Your task to perform on an android device: Go to Android settings Image 0: 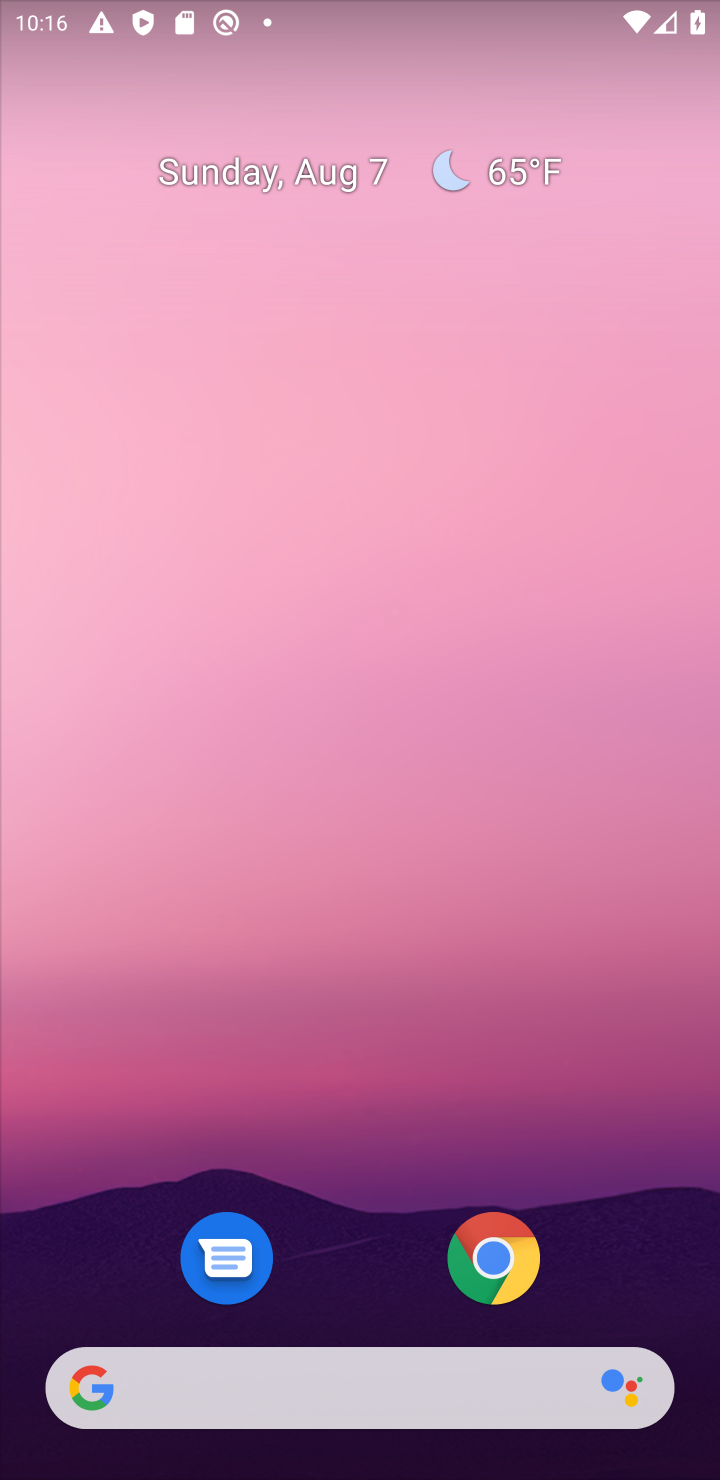
Step 0: press home button
Your task to perform on an android device: Go to Android settings Image 1: 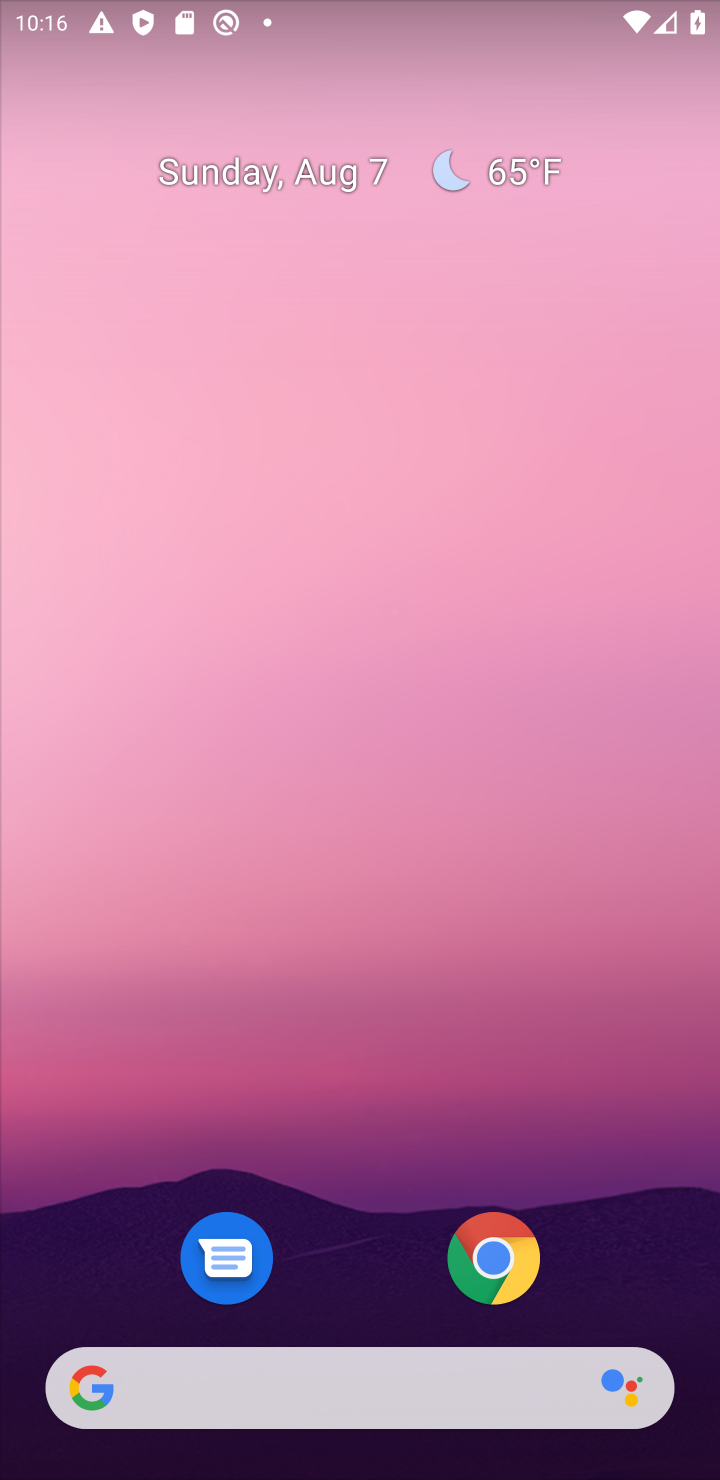
Step 1: drag from (362, 1301) to (244, 128)
Your task to perform on an android device: Go to Android settings Image 2: 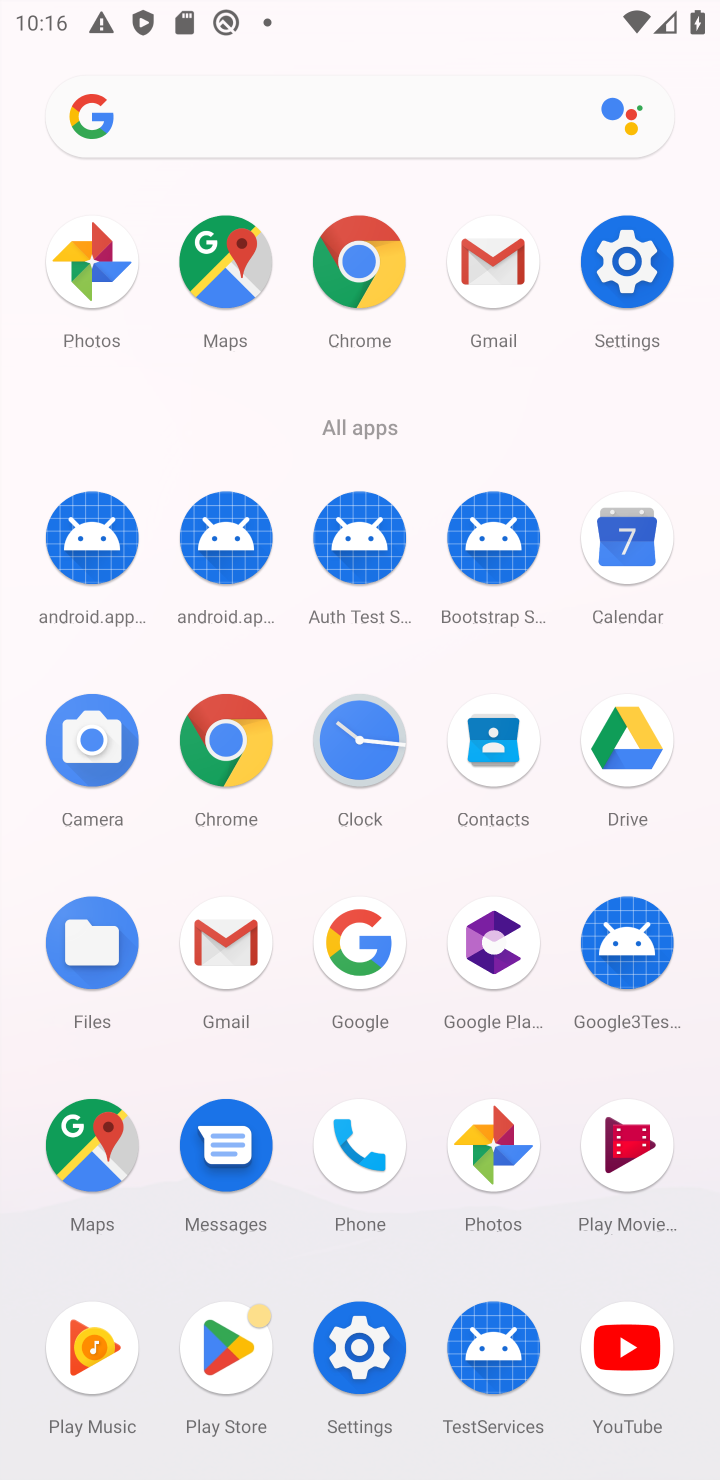
Step 2: click (309, 1353)
Your task to perform on an android device: Go to Android settings Image 3: 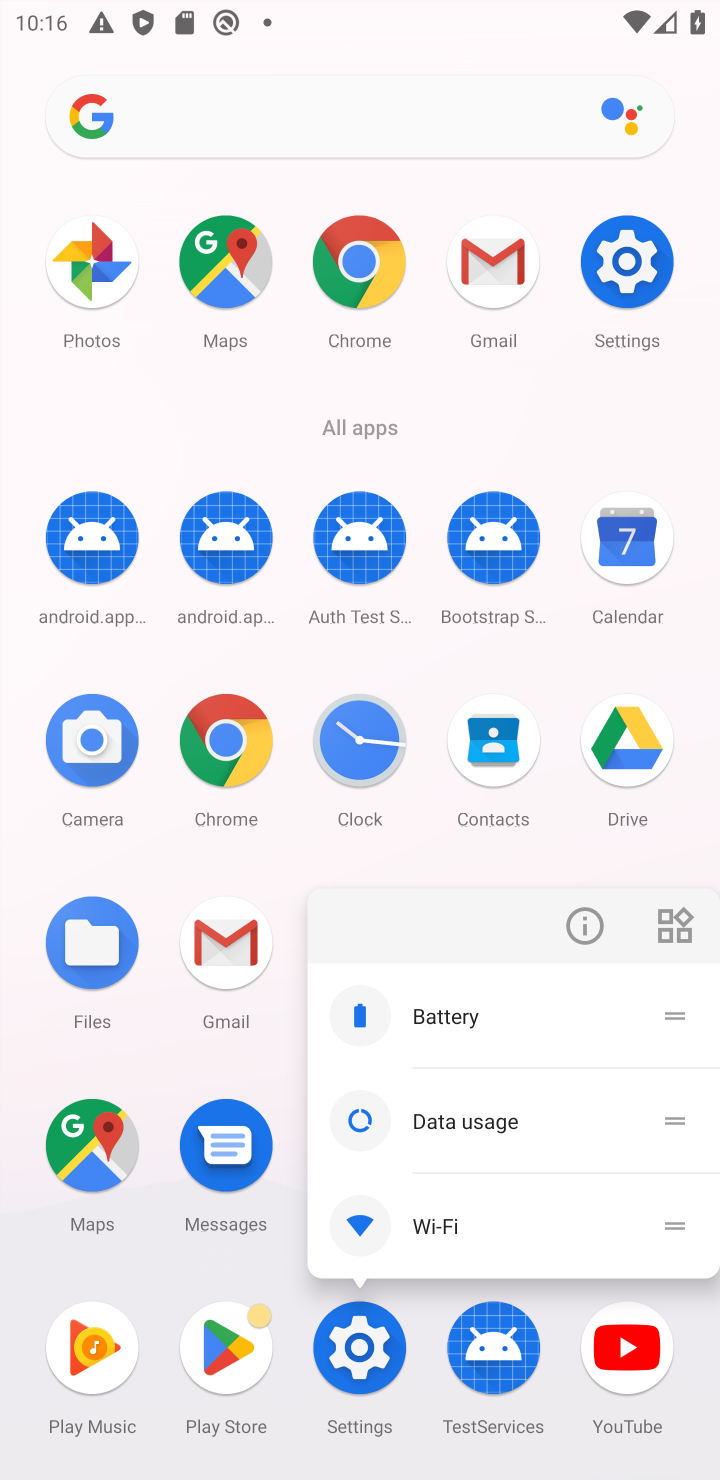
Step 3: click (393, 1360)
Your task to perform on an android device: Go to Android settings Image 4: 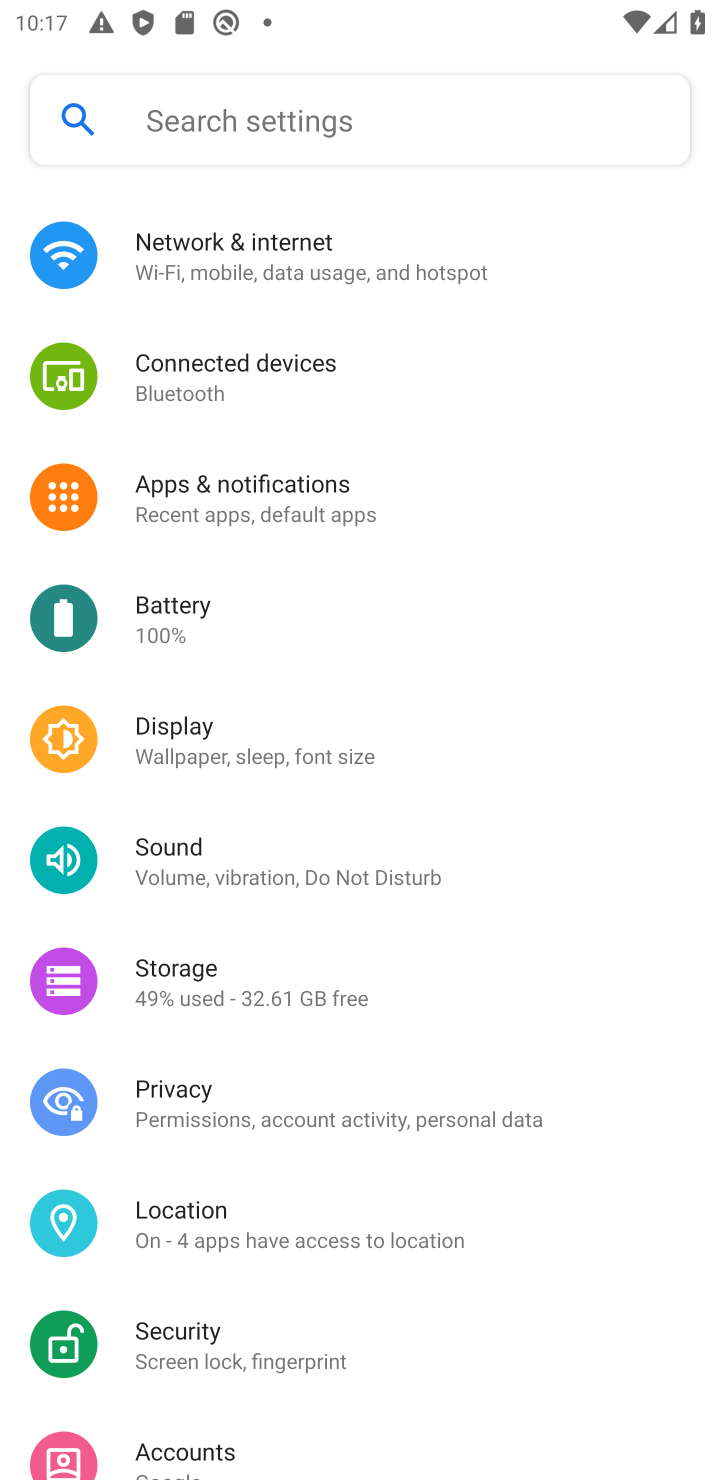
Step 4: drag from (350, 1091) to (289, 0)
Your task to perform on an android device: Go to Android settings Image 5: 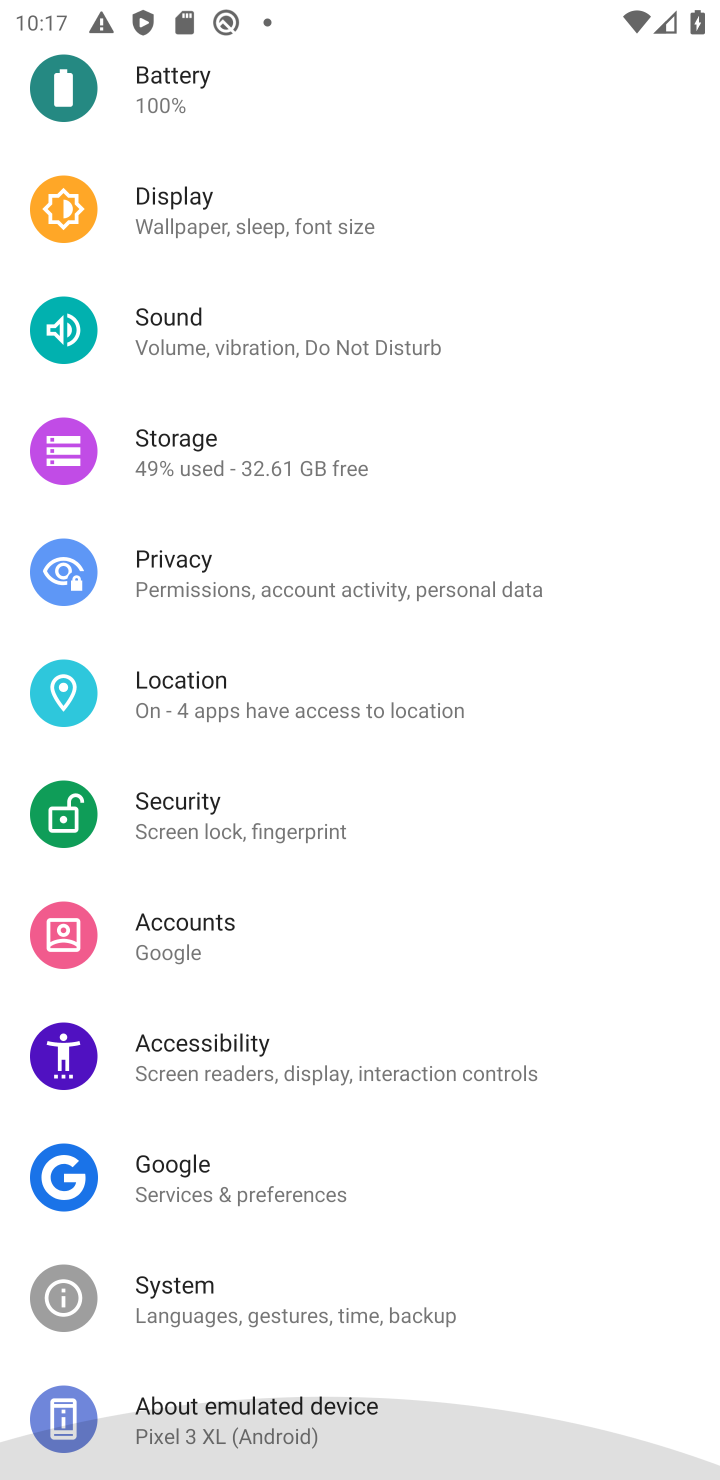
Step 5: drag from (343, 352) to (340, 243)
Your task to perform on an android device: Go to Android settings Image 6: 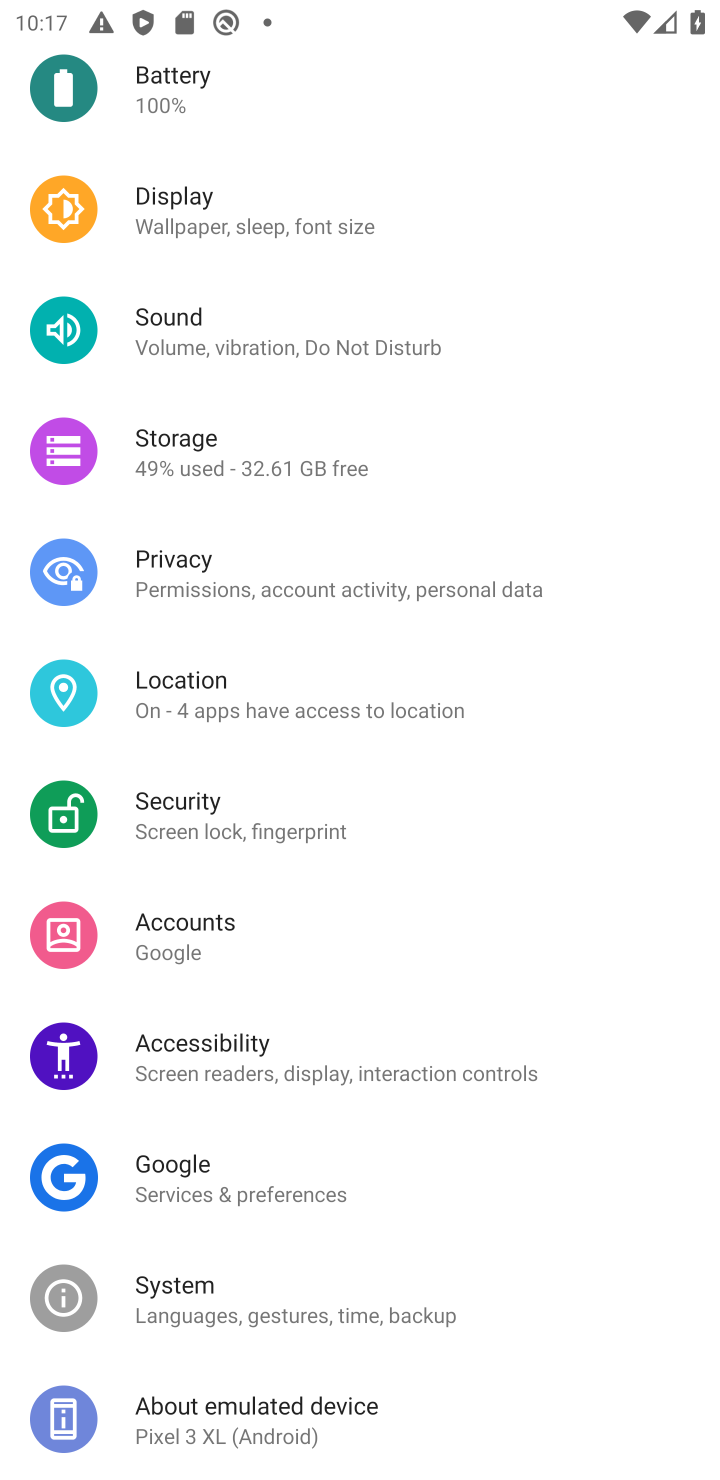
Step 6: drag from (304, 689) to (322, 201)
Your task to perform on an android device: Go to Android settings Image 7: 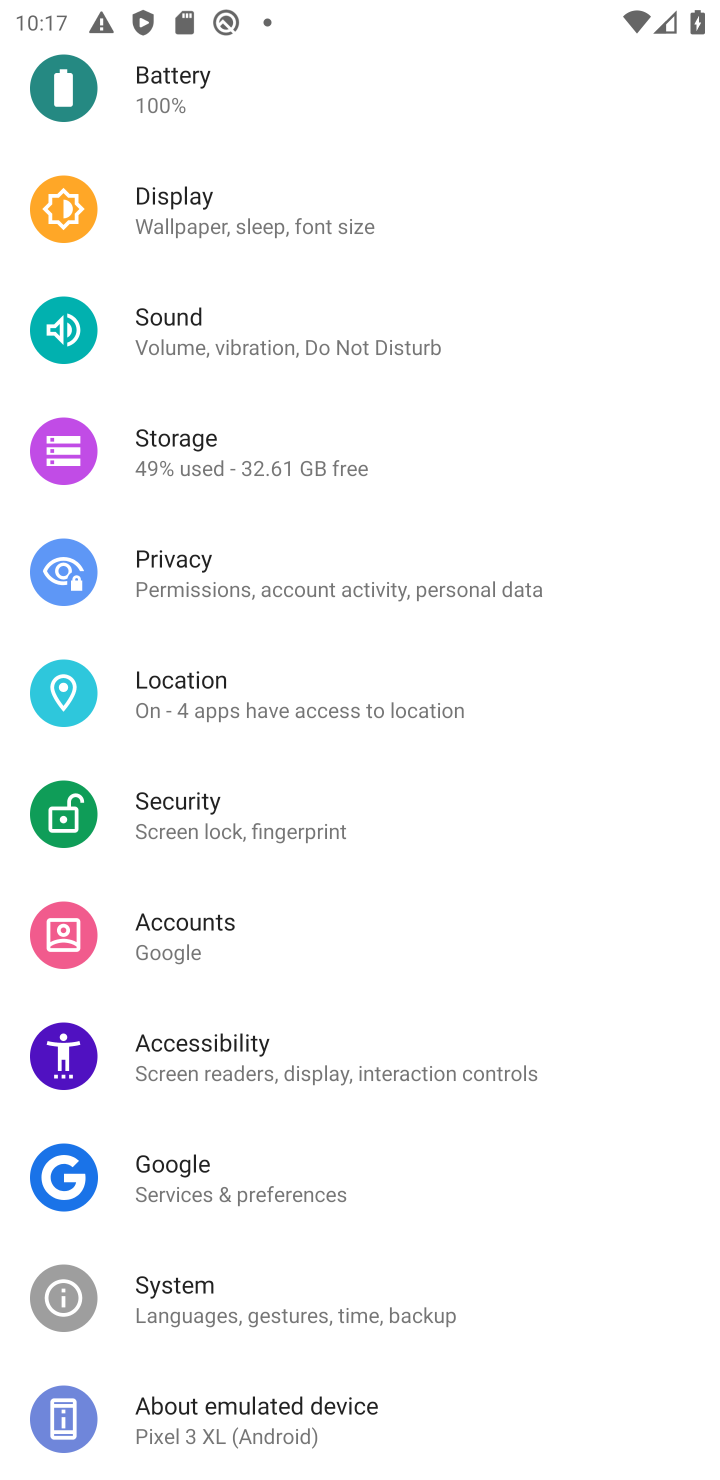
Step 7: click (243, 1407)
Your task to perform on an android device: Go to Android settings Image 8: 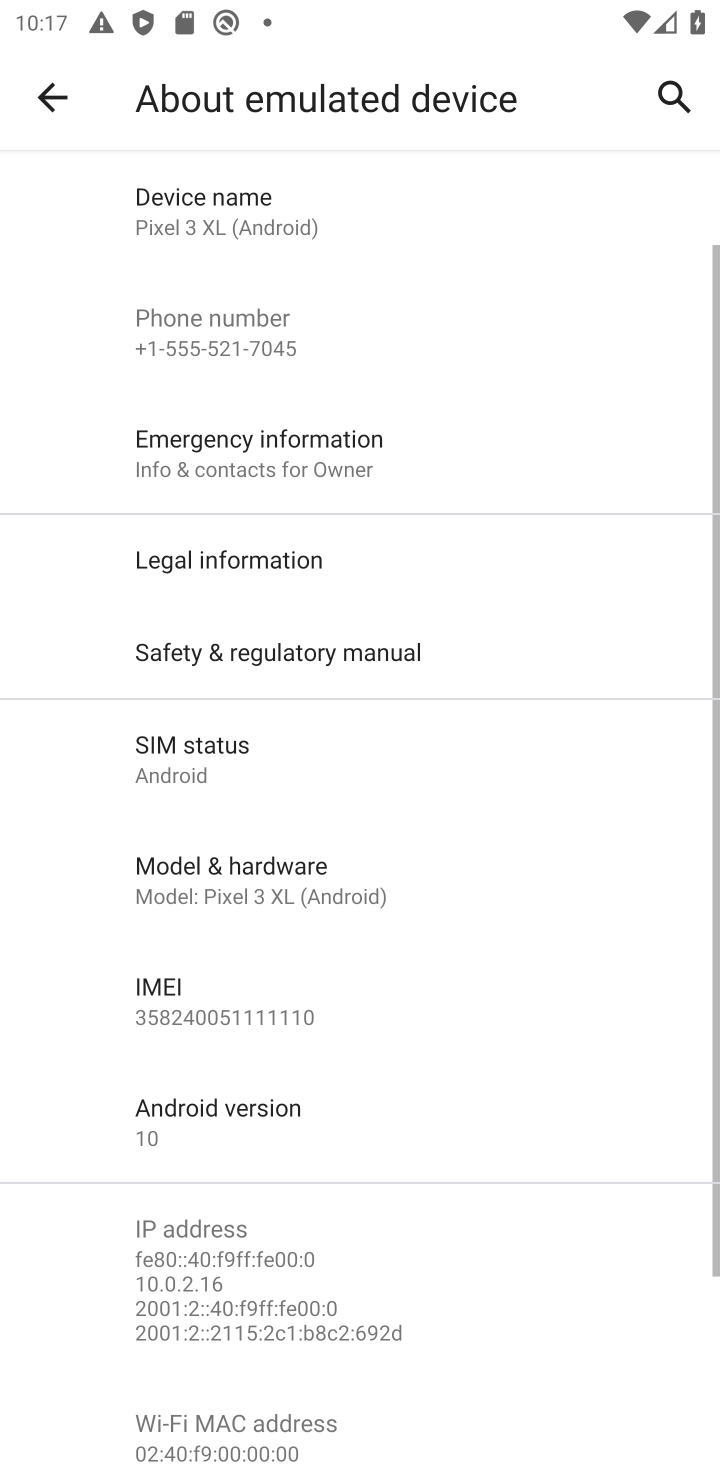
Step 8: click (288, 1122)
Your task to perform on an android device: Go to Android settings Image 9: 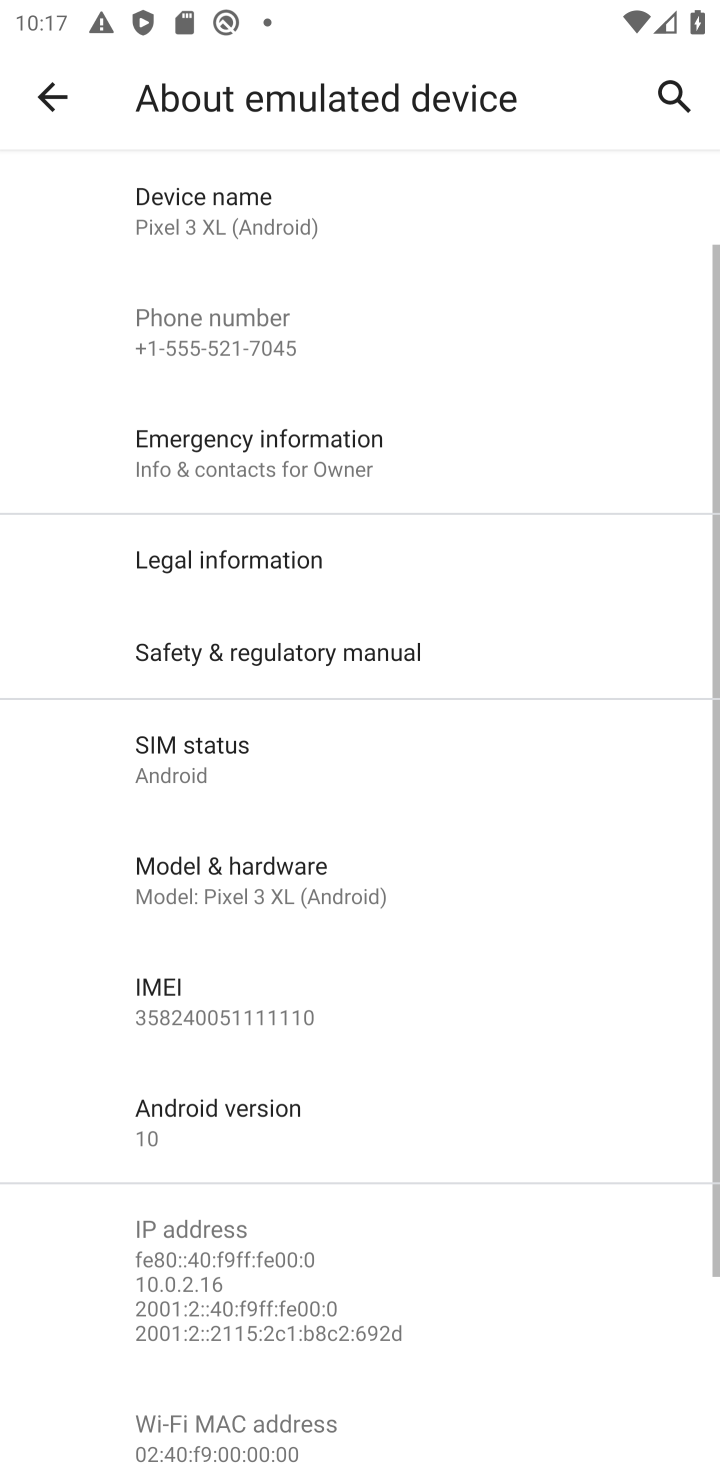
Step 9: task complete